Your task to perform on an android device: uninstall "Reddit" Image 0: 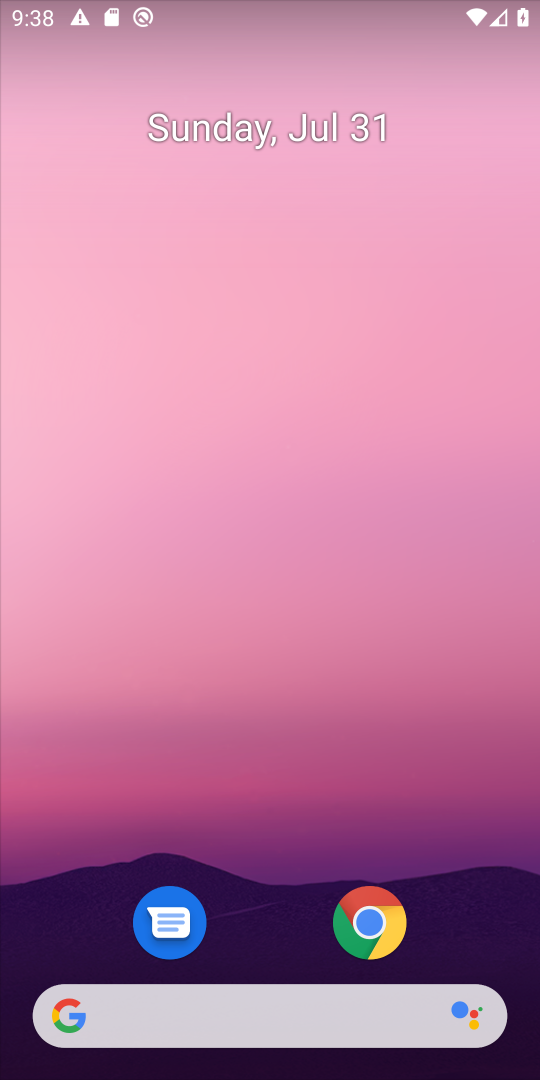
Step 0: drag from (261, 1046) to (261, 55)
Your task to perform on an android device: uninstall "Reddit" Image 1: 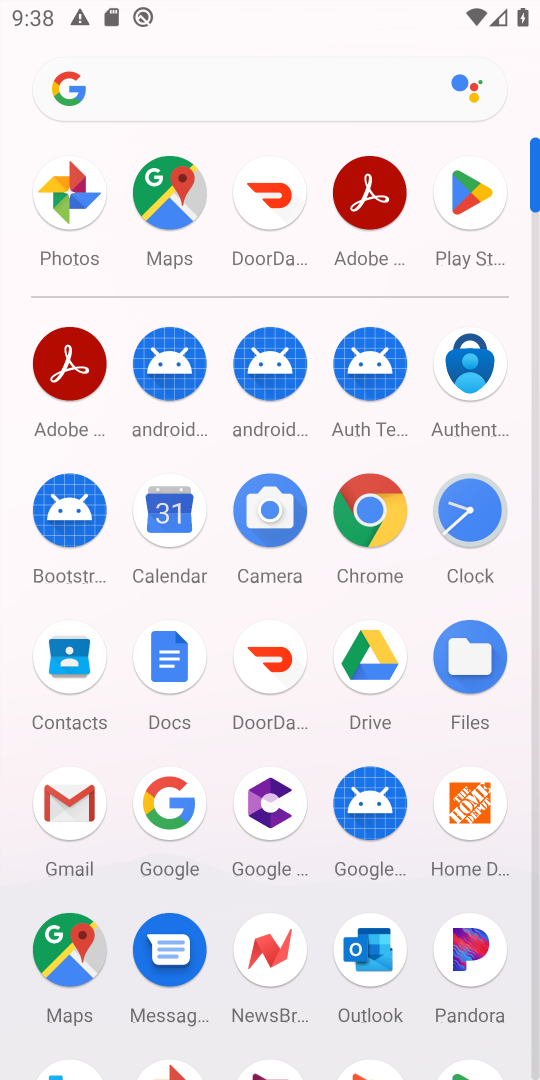
Step 1: click (471, 210)
Your task to perform on an android device: uninstall "Reddit" Image 2: 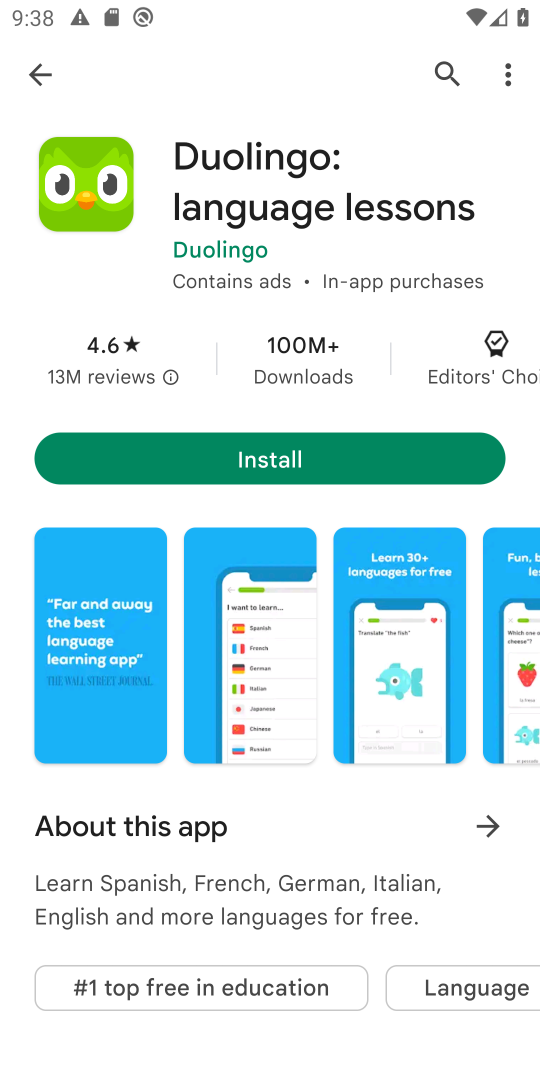
Step 2: click (444, 62)
Your task to perform on an android device: uninstall "Reddit" Image 3: 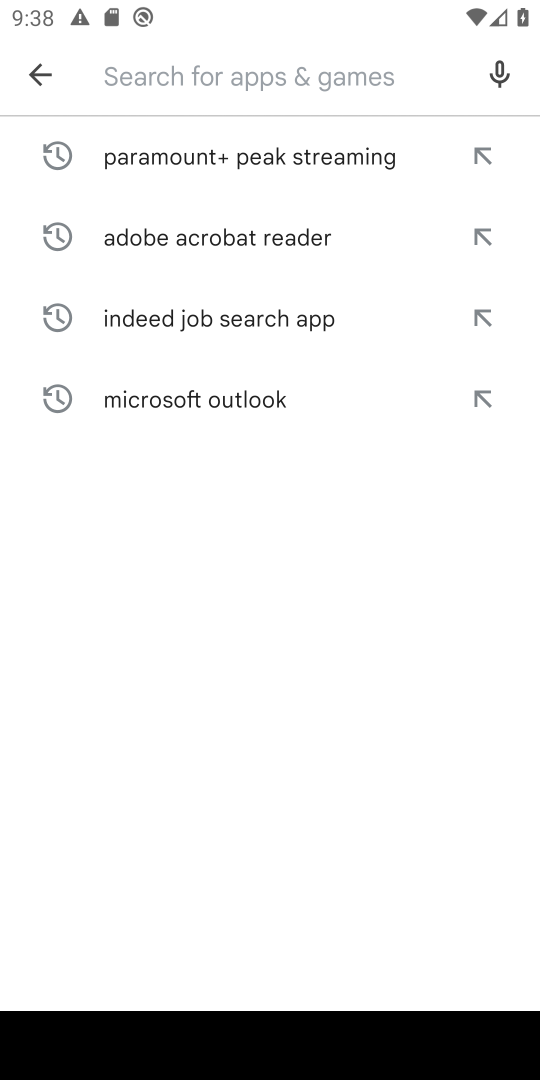
Step 3: type "Reddit"
Your task to perform on an android device: uninstall "Reddit" Image 4: 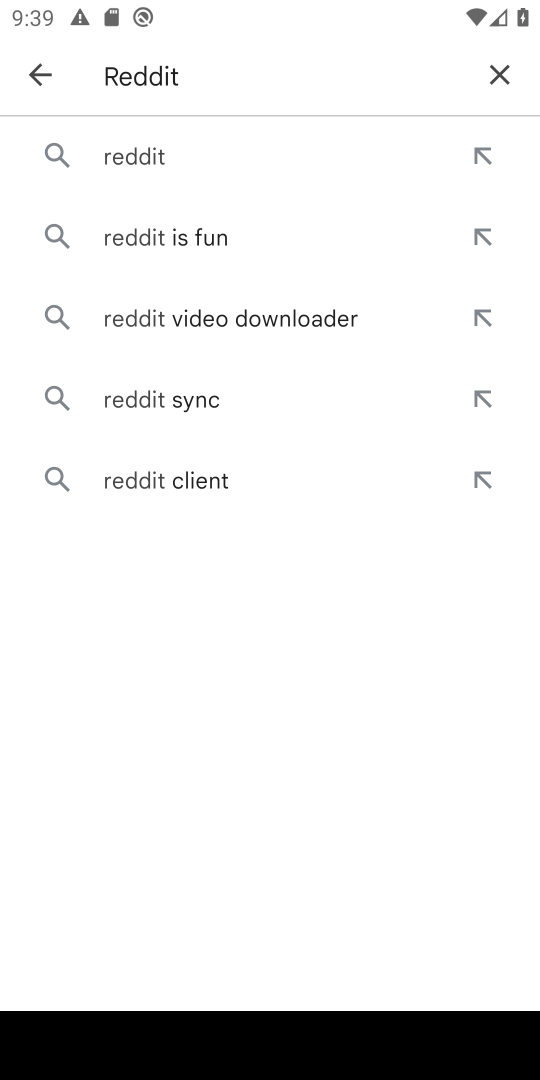
Step 4: click (123, 150)
Your task to perform on an android device: uninstall "Reddit" Image 5: 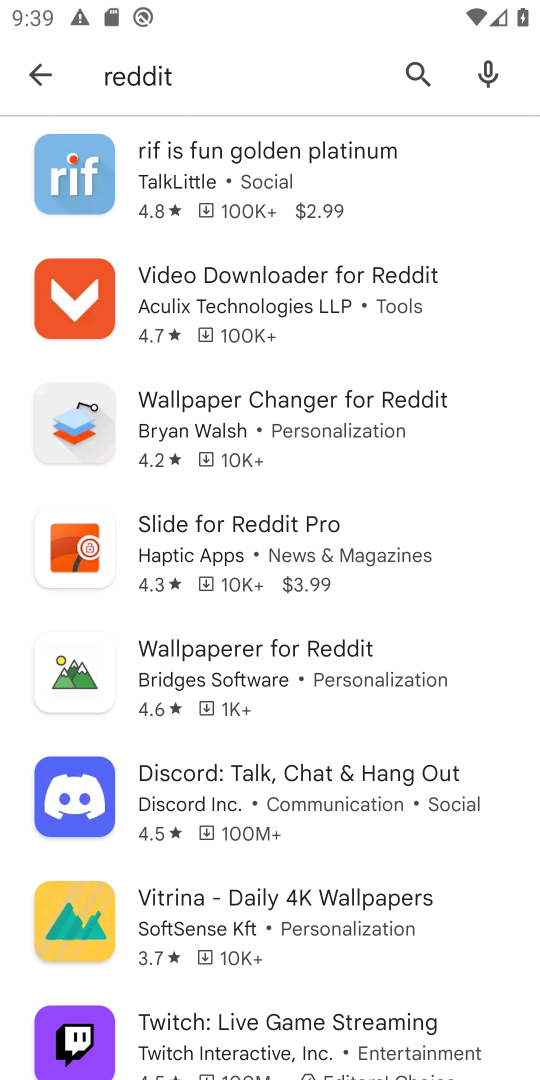
Step 5: task complete